Your task to perform on an android device: open a new tab in the chrome app Image 0: 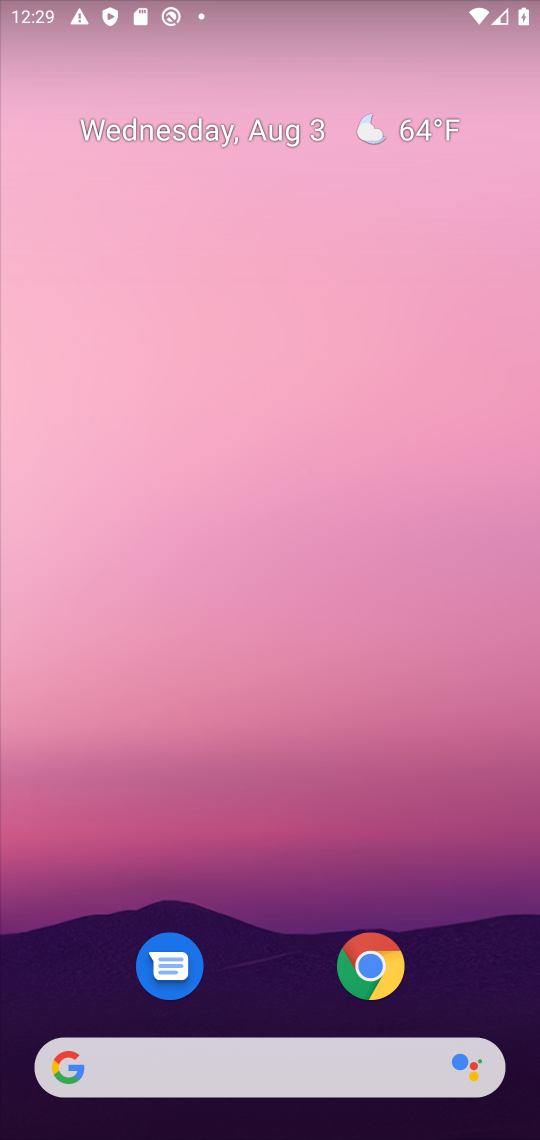
Step 0: click (376, 962)
Your task to perform on an android device: open a new tab in the chrome app Image 1: 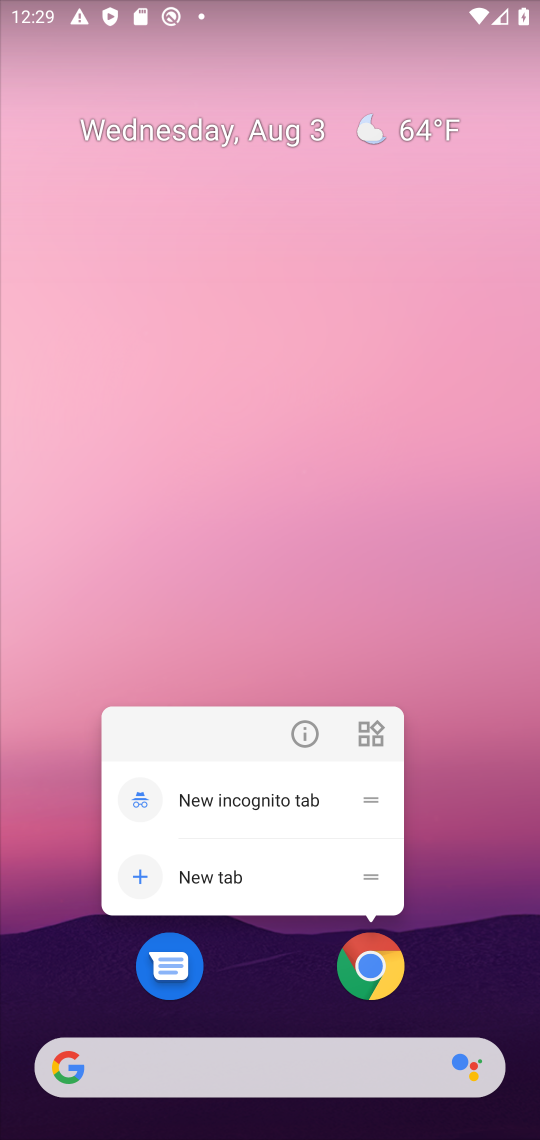
Step 1: click (365, 951)
Your task to perform on an android device: open a new tab in the chrome app Image 2: 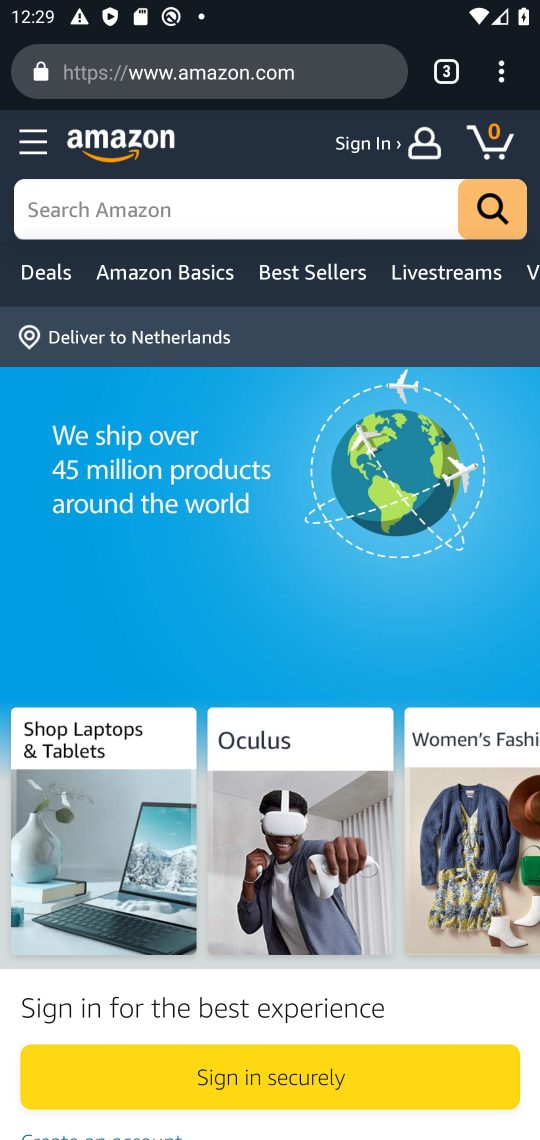
Step 2: click (455, 63)
Your task to perform on an android device: open a new tab in the chrome app Image 3: 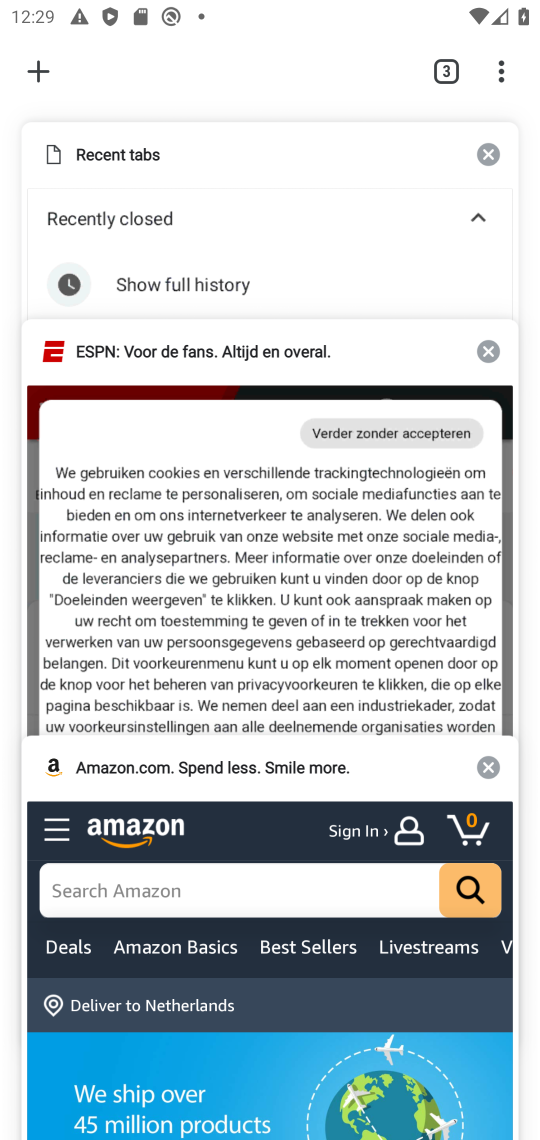
Step 3: click (38, 70)
Your task to perform on an android device: open a new tab in the chrome app Image 4: 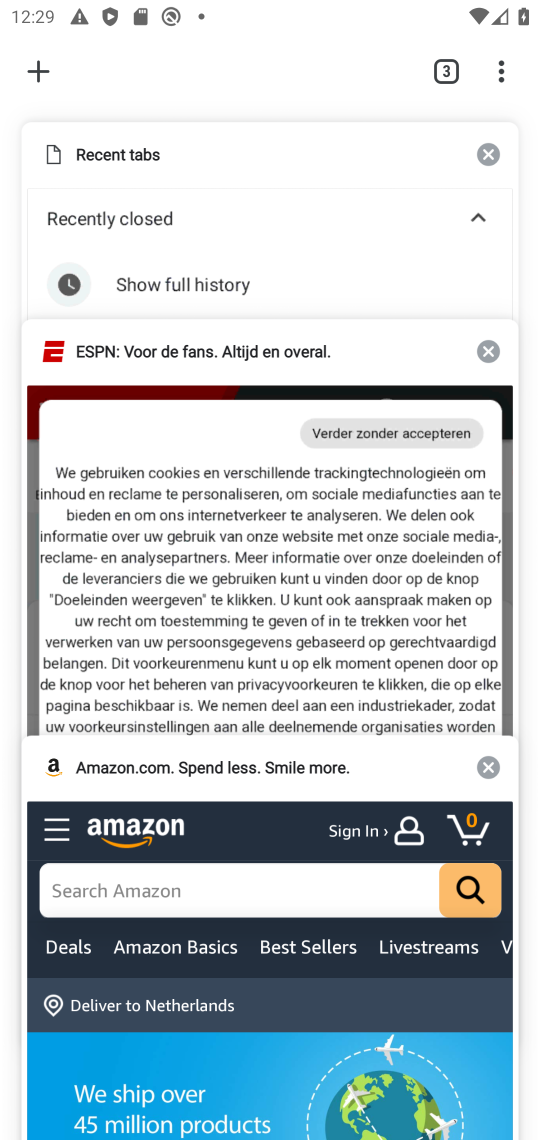
Step 4: click (37, 61)
Your task to perform on an android device: open a new tab in the chrome app Image 5: 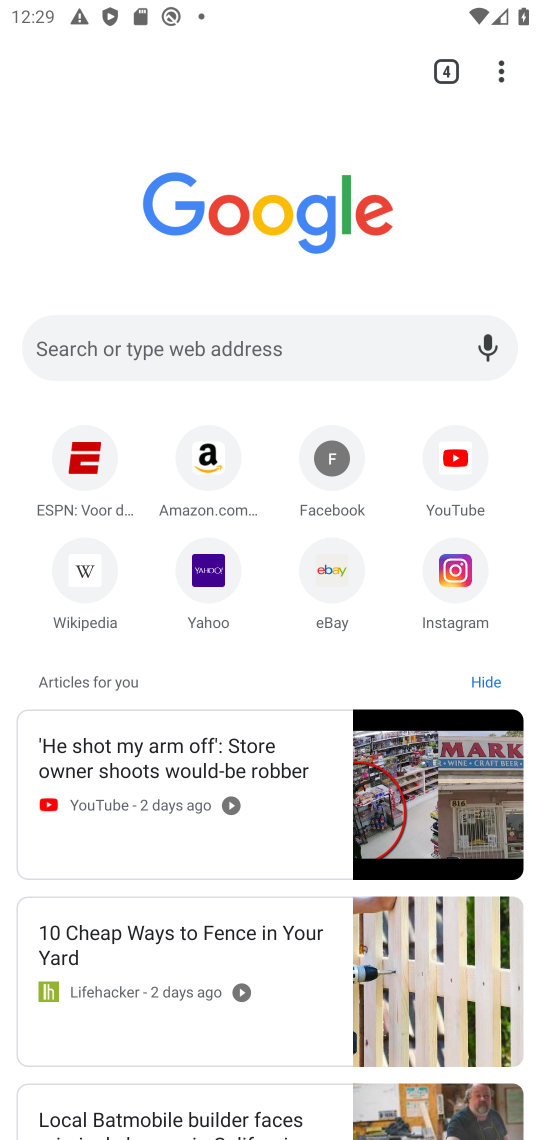
Step 5: task complete